Your task to perform on an android device: turn off location history Image 0: 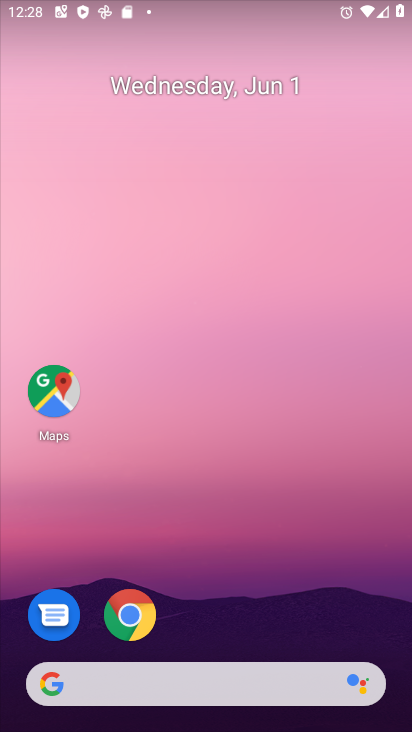
Step 0: drag from (352, 516) to (321, 4)
Your task to perform on an android device: turn off location history Image 1: 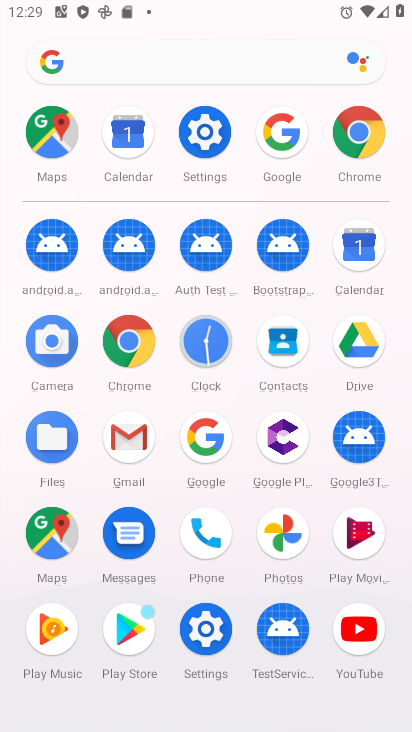
Step 1: click (207, 136)
Your task to perform on an android device: turn off location history Image 2: 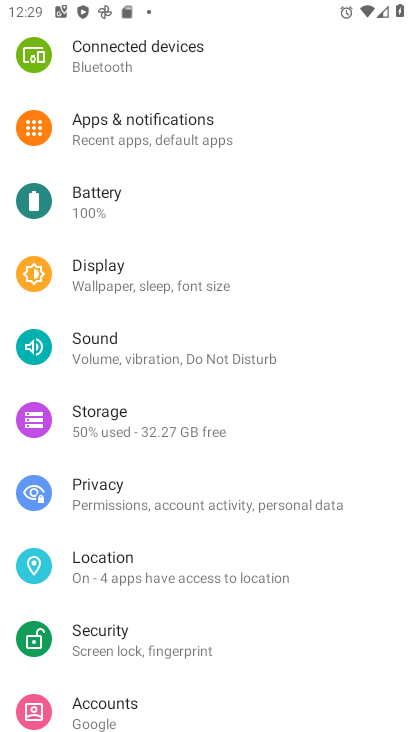
Step 2: click (141, 595)
Your task to perform on an android device: turn off location history Image 3: 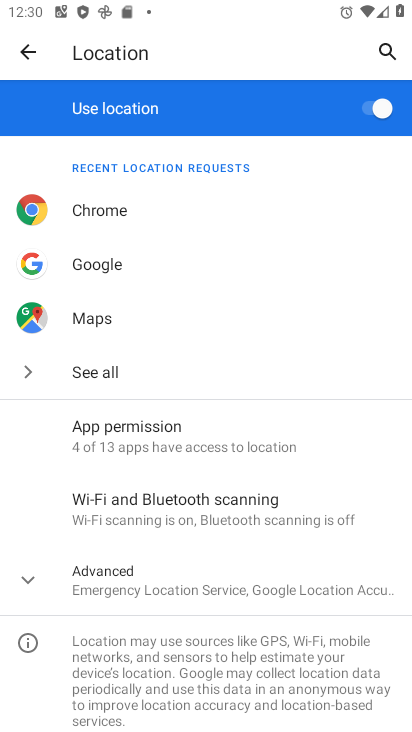
Step 3: click (129, 584)
Your task to perform on an android device: turn off location history Image 4: 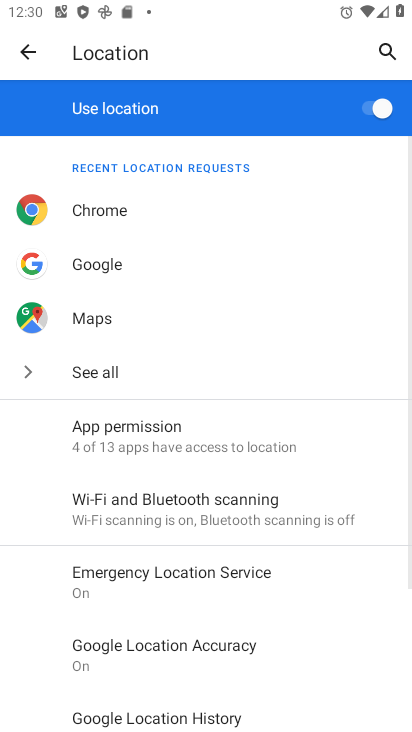
Step 4: drag from (166, 674) to (154, 397)
Your task to perform on an android device: turn off location history Image 5: 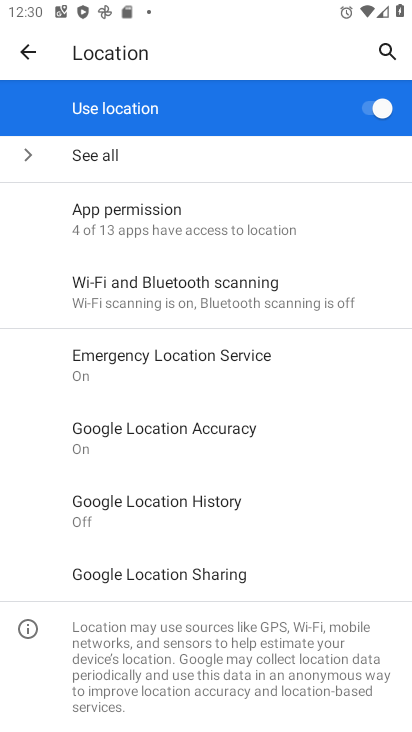
Step 5: click (184, 502)
Your task to perform on an android device: turn off location history Image 6: 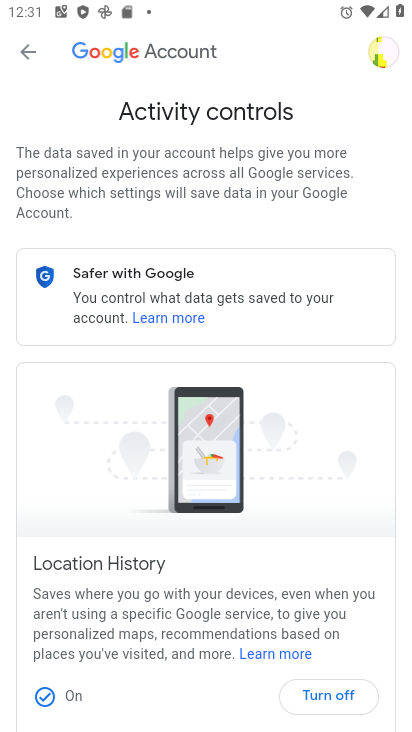
Step 6: drag from (346, 639) to (364, 323)
Your task to perform on an android device: turn off location history Image 7: 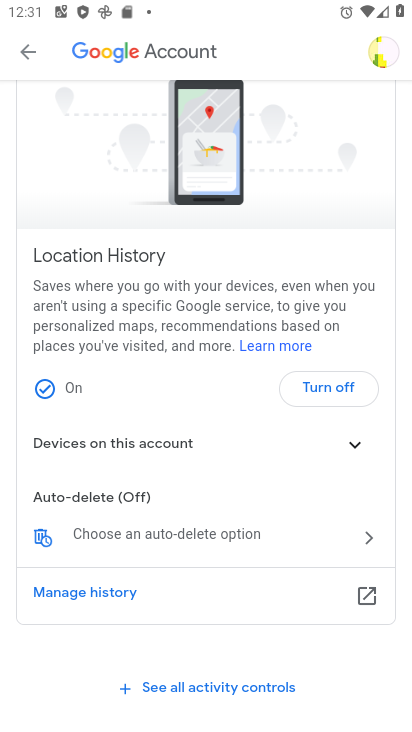
Step 7: click (323, 390)
Your task to perform on an android device: turn off location history Image 8: 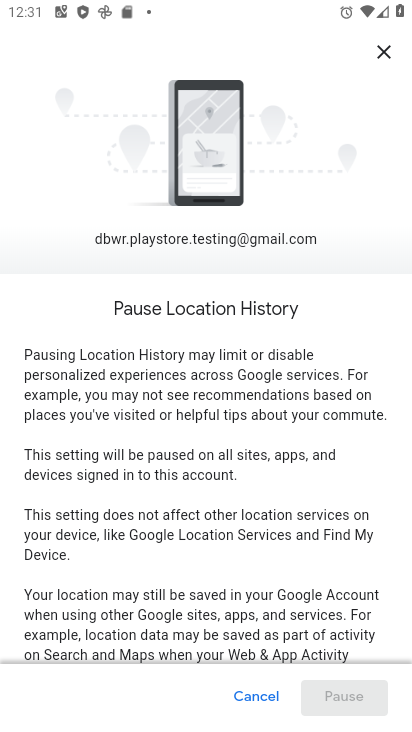
Step 8: drag from (314, 593) to (331, 86)
Your task to perform on an android device: turn off location history Image 9: 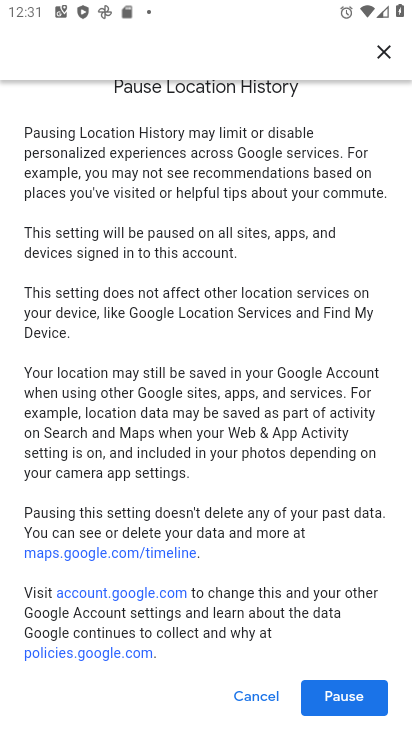
Step 9: click (341, 697)
Your task to perform on an android device: turn off location history Image 10: 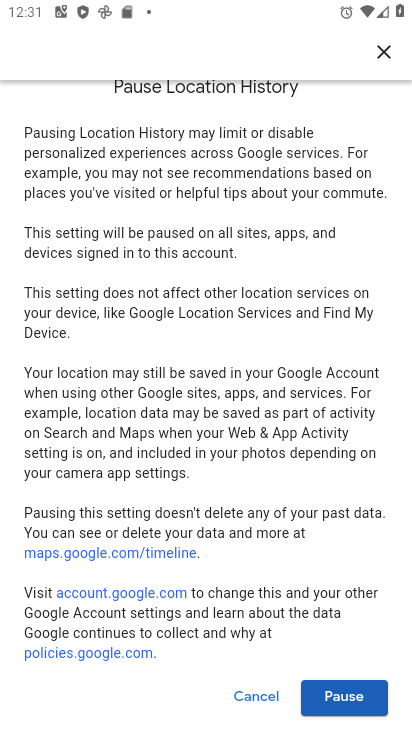
Step 10: click (341, 694)
Your task to perform on an android device: turn off location history Image 11: 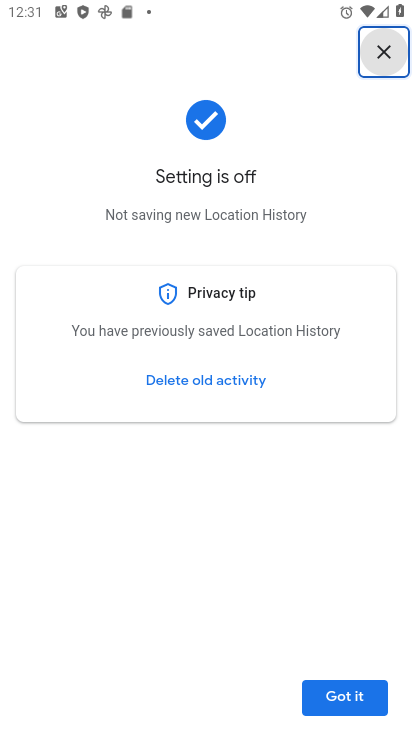
Step 11: task complete